Your task to perform on an android device: allow cookies in the chrome app Image 0: 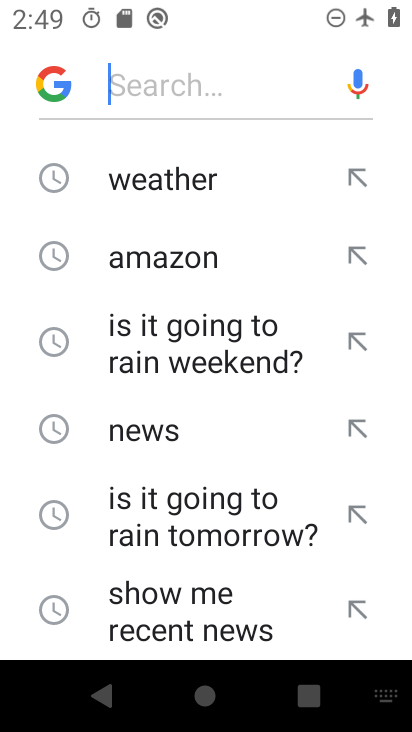
Step 0: press home button
Your task to perform on an android device: allow cookies in the chrome app Image 1: 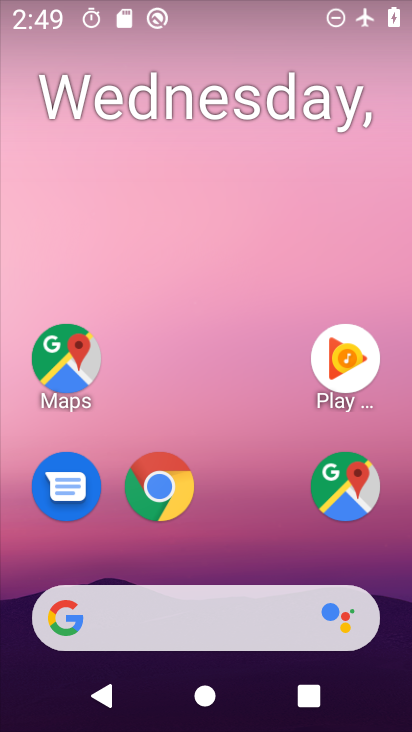
Step 1: drag from (263, 511) to (264, 42)
Your task to perform on an android device: allow cookies in the chrome app Image 2: 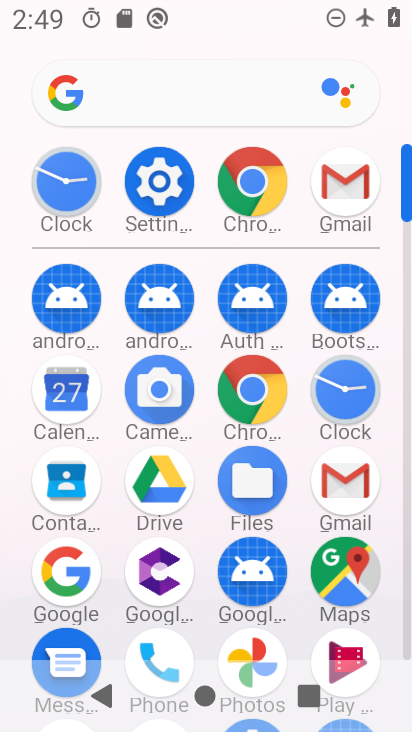
Step 2: click (272, 386)
Your task to perform on an android device: allow cookies in the chrome app Image 3: 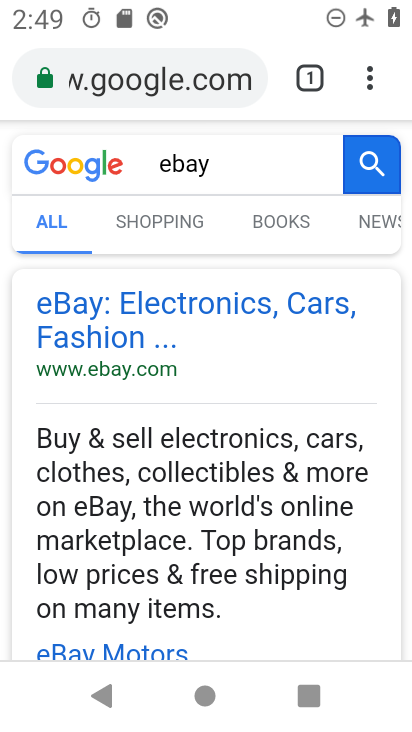
Step 3: click (368, 82)
Your task to perform on an android device: allow cookies in the chrome app Image 4: 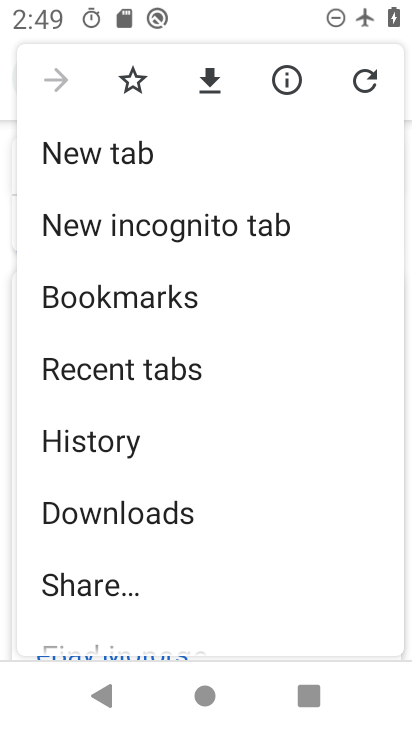
Step 4: drag from (310, 505) to (304, 329)
Your task to perform on an android device: allow cookies in the chrome app Image 5: 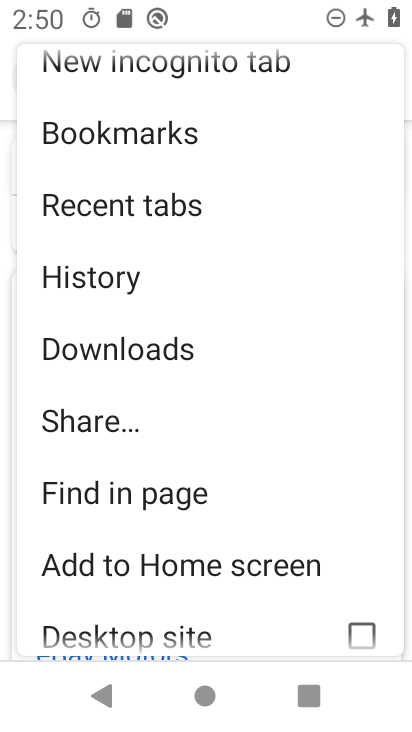
Step 5: drag from (306, 479) to (314, 386)
Your task to perform on an android device: allow cookies in the chrome app Image 6: 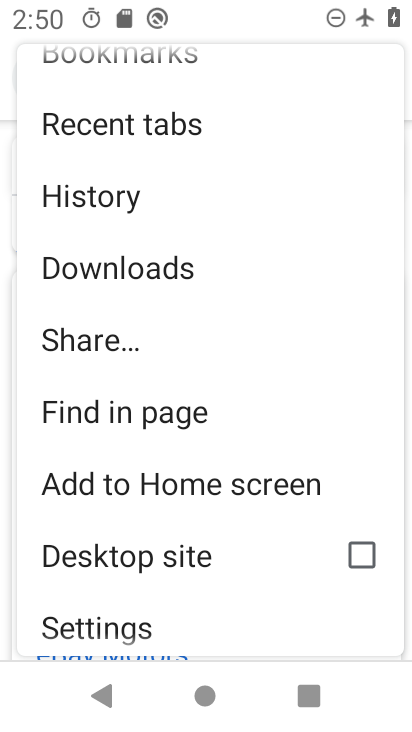
Step 6: drag from (259, 548) to (272, 428)
Your task to perform on an android device: allow cookies in the chrome app Image 7: 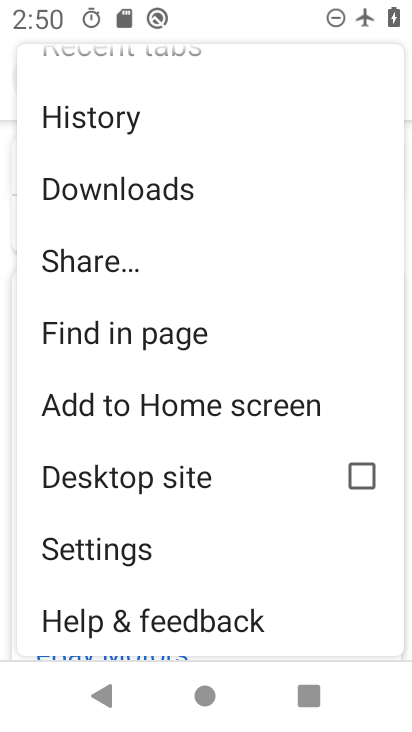
Step 7: click (252, 550)
Your task to perform on an android device: allow cookies in the chrome app Image 8: 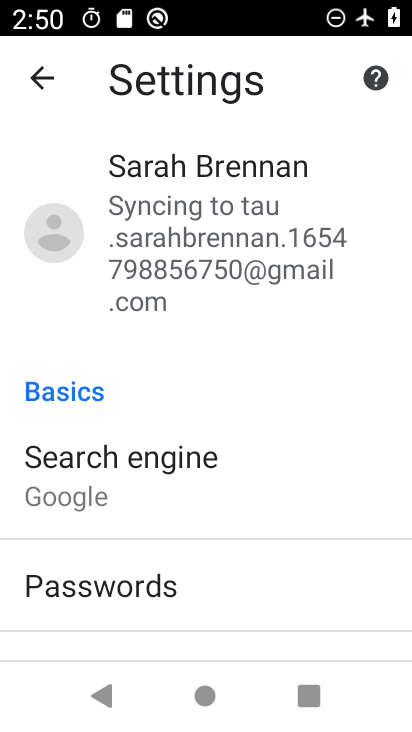
Step 8: drag from (307, 520) to (308, 397)
Your task to perform on an android device: allow cookies in the chrome app Image 9: 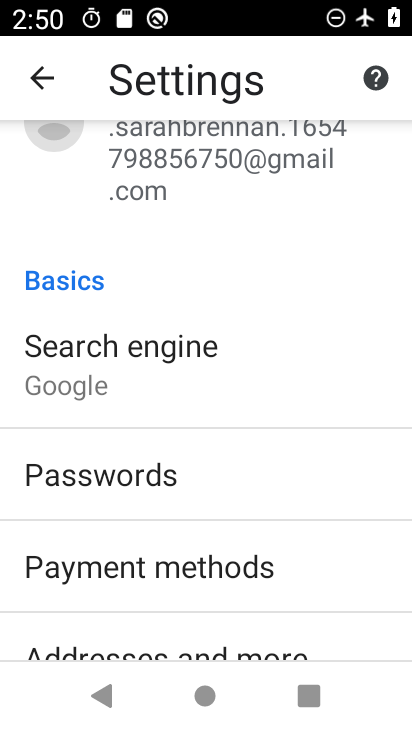
Step 9: drag from (310, 528) to (316, 433)
Your task to perform on an android device: allow cookies in the chrome app Image 10: 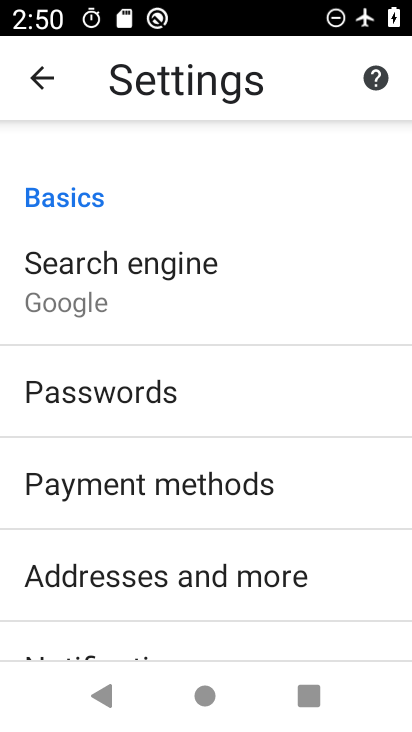
Step 10: drag from (341, 574) to (333, 463)
Your task to perform on an android device: allow cookies in the chrome app Image 11: 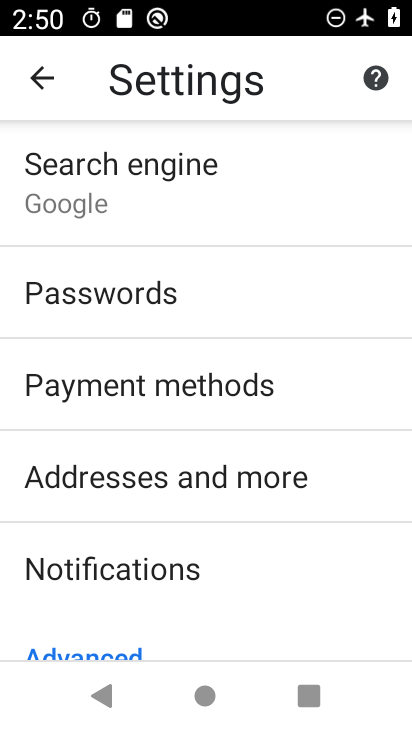
Step 11: drag from (323, 579) to (328, 461)
Your task to perform on an android device: allow cookies in the chrome app Image 12: 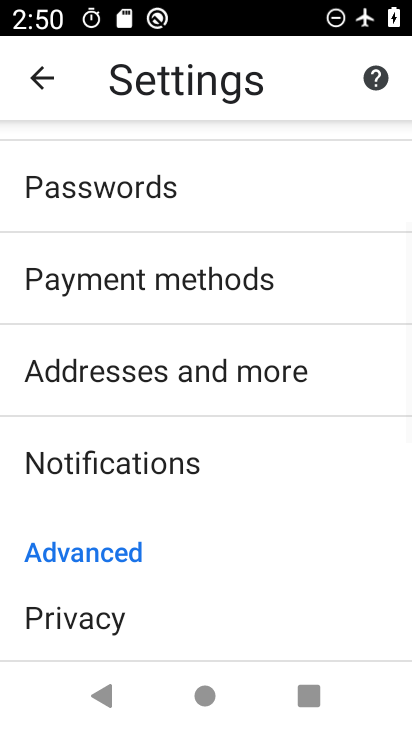
Step 12: drag from (330, 584) to (340, 464)
Your task to perform on an android device: allow cookies in the chrome app Image 13: 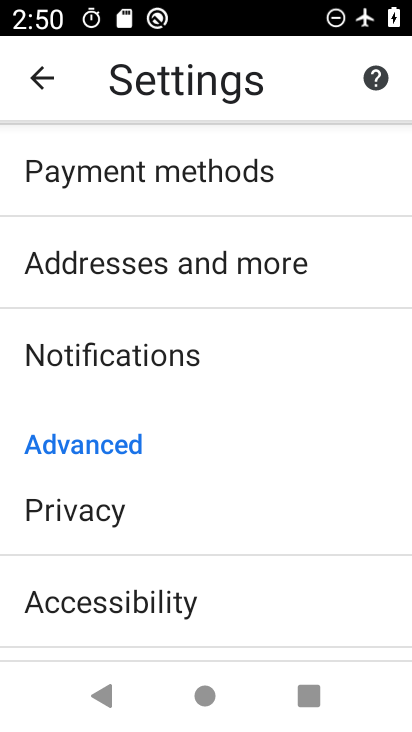
Step 13: drag from (331, 588) to (320, 477)
Your task to perform on an android device: allow cookies in the chrome app Image 14: 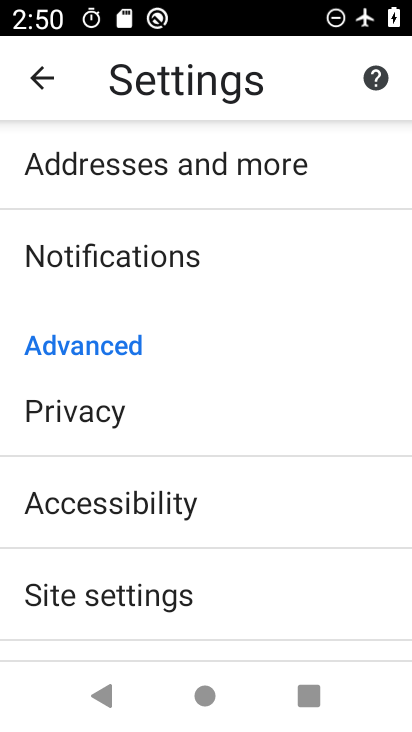
Step 14: click (300, 587)
Your task to perform on an android device: allow cookies in the chrome app Image 15: 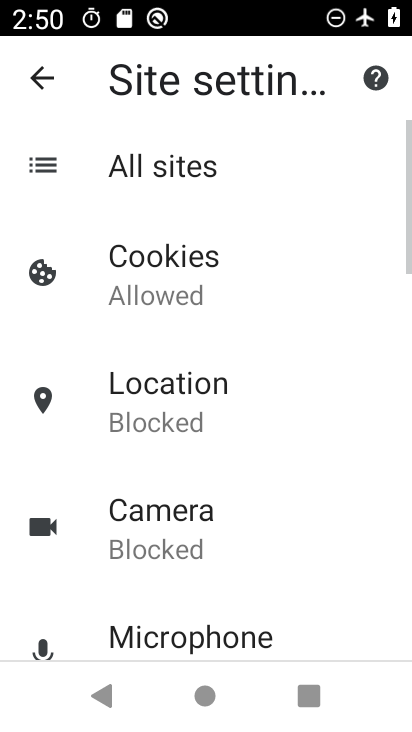
Step 15: drag from (300, 587) to (294, 486)
Your task to perform on an android device: allow cookies in the chrome app Image 16: 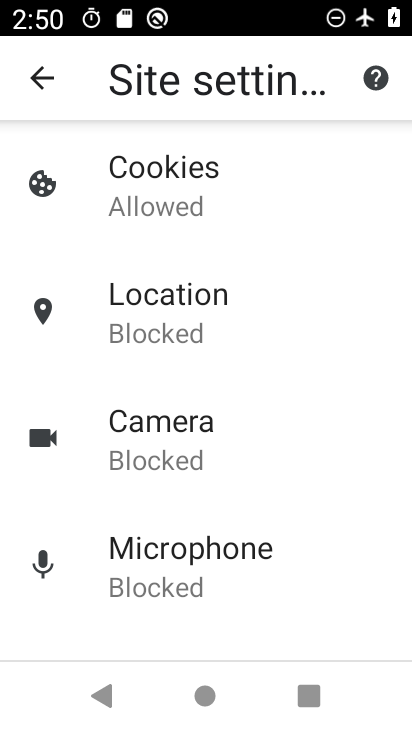
Step 16: drag from (299, 584) to (294, 508)
Your task to perform on an android device: allow cookies in the chrome app Image 17: 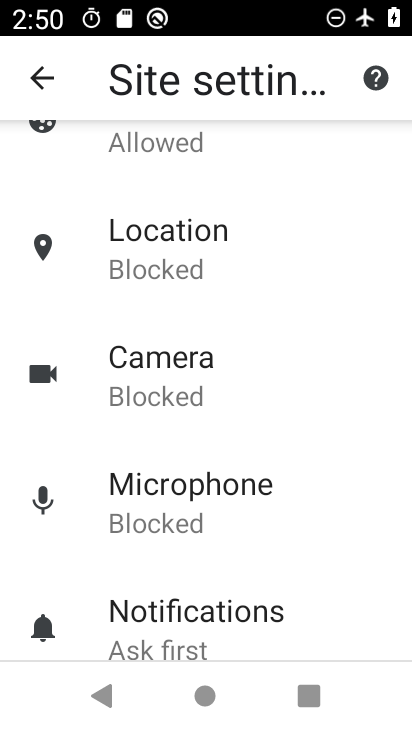
Step 17: drag from (316, 303) to (332, 438)
Your task to perform on an android device: allow cookies in the chrome app Image 18: 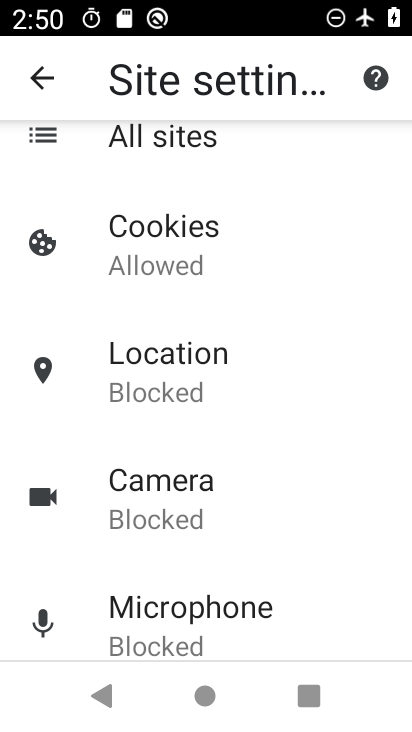
Step 18: drag from (320, 225) to (320, 380)
Your task to perform on an android device: allow cookies in the chrome app Image 19: 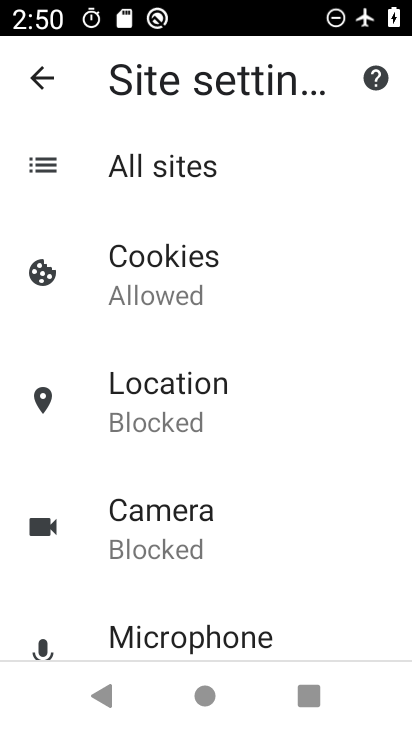
Step 19: drag from (314, 213) to (291, 410)
Your task to perform on an android device: allow cookies in the chrome app Image 20: 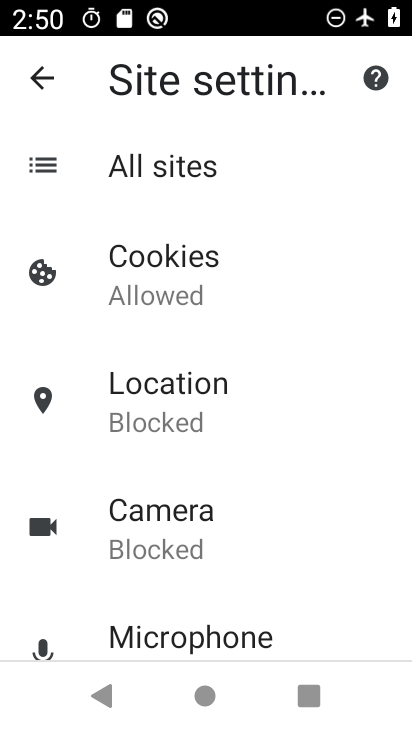
Step 20: click (172, 263)
Your task to perform on an android device: allow cookies in the chrome app Image 21: 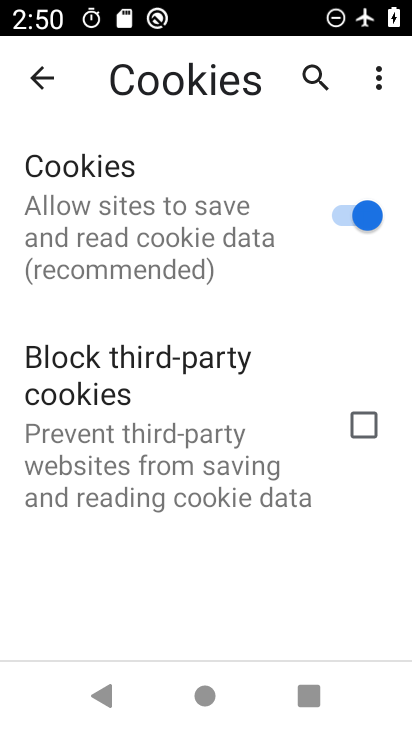
Step 21: task complete